Your task to perform on an android device: Look up the best gaming headphones on Best Buy Image 0: 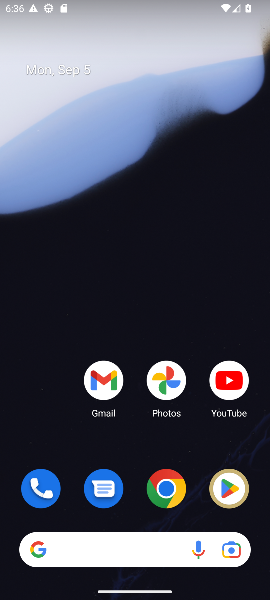
Step 0: click (184, 313)
Your task to perform on an android device: Look up the best gaming headphones on Best Buy Image 1: 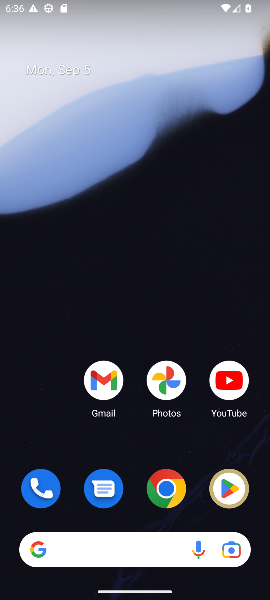
Step 1: click (163, 494)
Your task to perform on an android device: Look up the best gaming headphones on Best Buy Image 2: 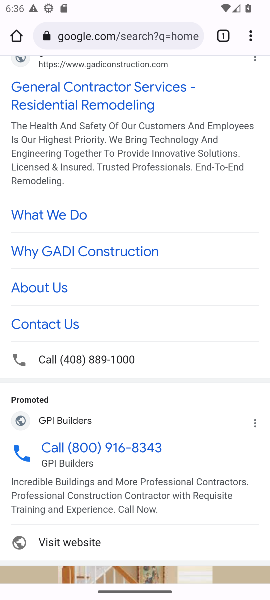
Step 2: click (128, 34)
Your task to perform on an android device: Look up the best gaming headphones on Best Buy Image 3: 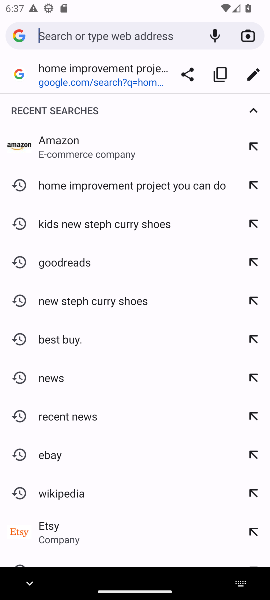
Step 3: type "best buy"
Your task to perform on an android device: Look up the best gaming headphones on Best Buy Image 4: 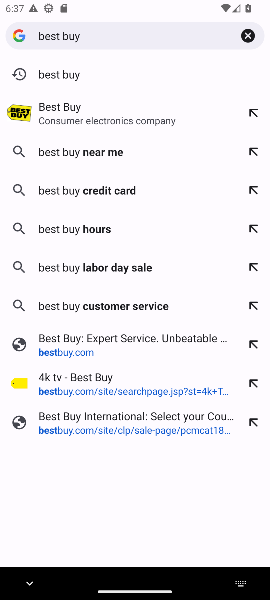
Step 4: press enter
Your task to perform on an android device: Look up the best gaming headphones on Best Buy Image 5: 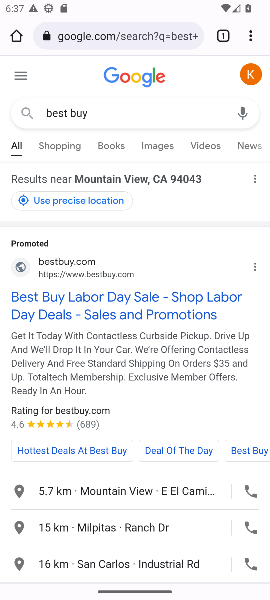
Step 5: click (80, 313)
Your task to perform on an android device: Look up the best gaming headphones on Best Buy Image 6: 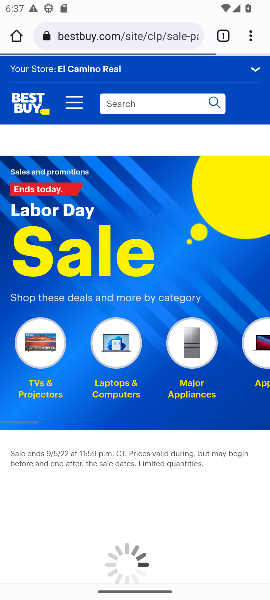
Step 6: click (136, 105)
Your task to perform on an android device: Look up the best gaming headphones on Best Buy Image 7: 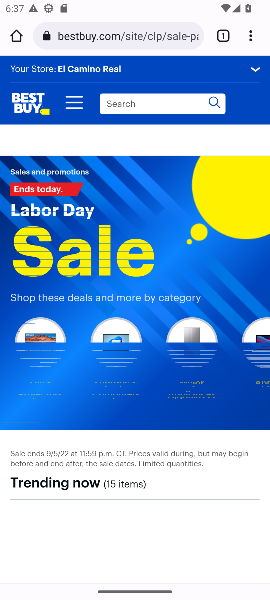
Step 7: click (141, 103)
Your task to perform on an android device: Look up the best gaming headphones on Best Buy Image 8: 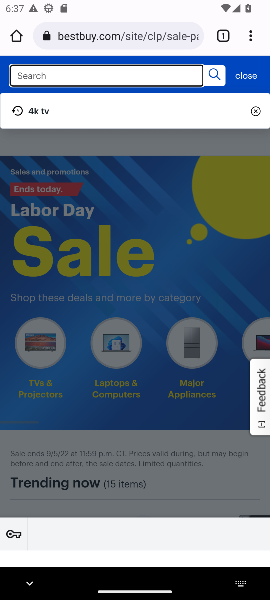
Step 8: type "gaming headphones"
Your task to perform on an android device: Look up the best gaming headphones on Best Buy Image 9: 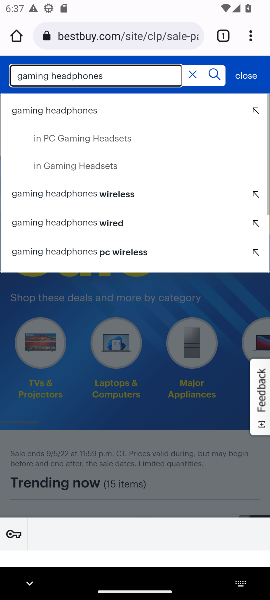
Step 9: press enter
Your task to perform on an android device: Look up the best gaming headphones on Best Buy Image 10: 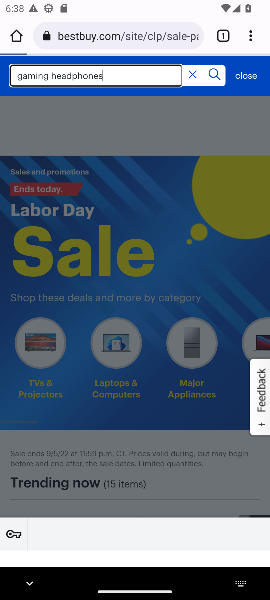
Step 10: click (214, 77)
Your task to perform on an android device: Look up the best gaming headphones on Best Buy Image 11: 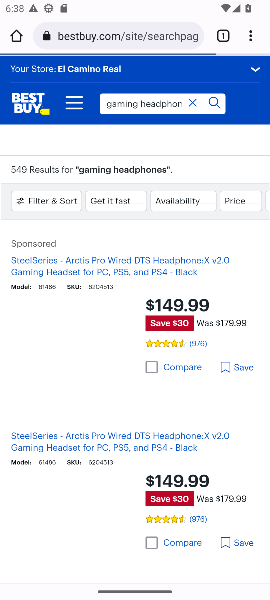
Step 11: click (46, 202)
Your task to perform on an android device: Look up the best gaming headphones on Best Buy Image 12: 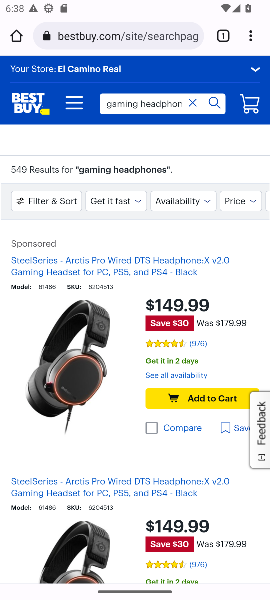
Step 12: click (46, 202)
Your task to perform on an android device: Look up the best gaming headphones on Best Buy Image 13: 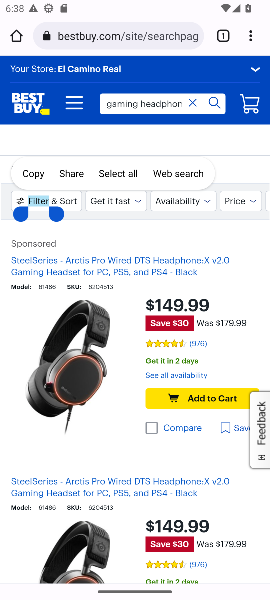
Step 13: click (67, 198)
Your task to perform on an android device: Look up the best gaming headphones on Best Buy Image 14: 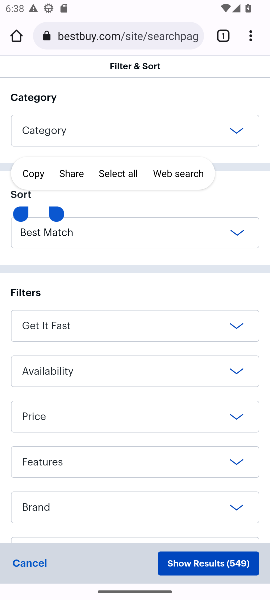
Step 14: click (231, 208)
Your task to perform on an android device: Look up the best gaming headphones on Best Buy Image 15: 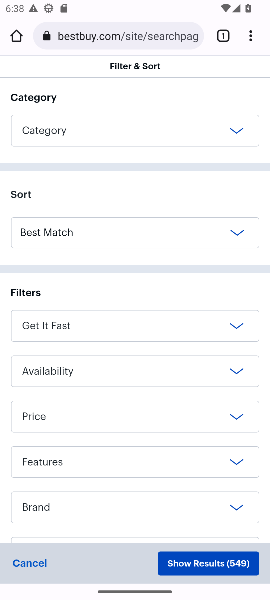
Step 15: click (236, 132)
Your task to perform on an android device: Look up the best gaming headphones on Best Buy Image 16: 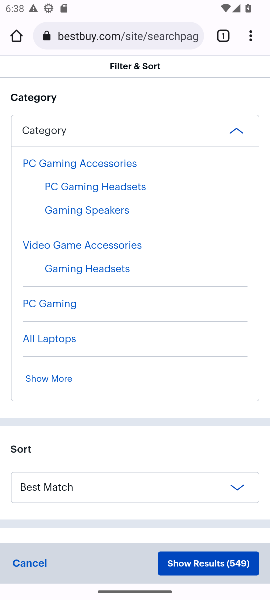
Step 16: click (236, 132)
Your task to perform on an android device: Look up the best gaming headphones on Best Buy Image 17: 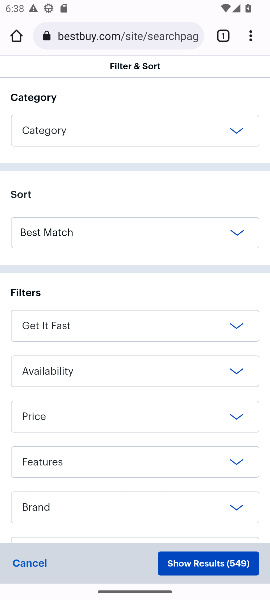
Step 17: drag from (143, 408) to (140, 182)
Your task to perform on an android device: Look up the best gaming headphones on Best Buy Image 18: 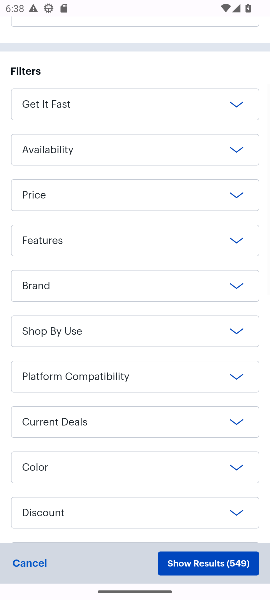
Step 18: drag from (147, 442) to (158, 161)
Your task to perform on an android device: Look up the best gaming headphones on Best Buy Image 19: 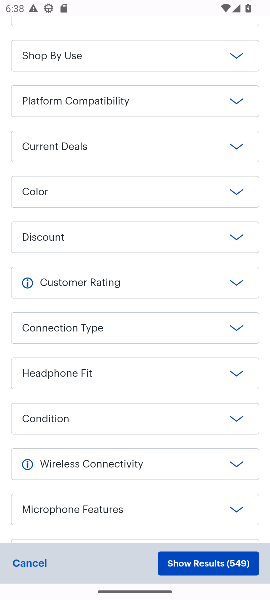
Step 19: drag from (146, 449) to (160, 165)
Your task to perform on an android device: Look up the best gaming headphones on Best Buy Image 20: 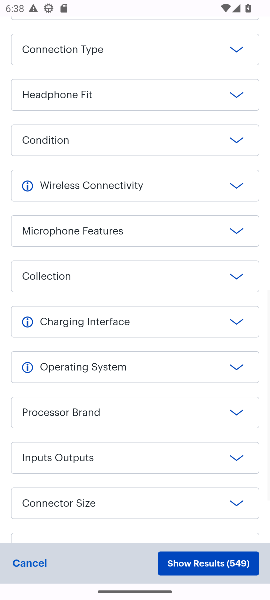
Step 20: drag from (128, 475) to (141, 191)
Your task to perform on an android device: Look up the best gaming headphones on Best Buy Image 21: 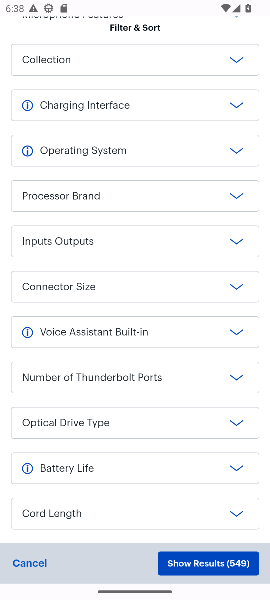
Step 21: drag from (142, 493) to (140, 172)
Your task to perform on an android device: Look up the best gaming headphones on Best Buy Image 22: 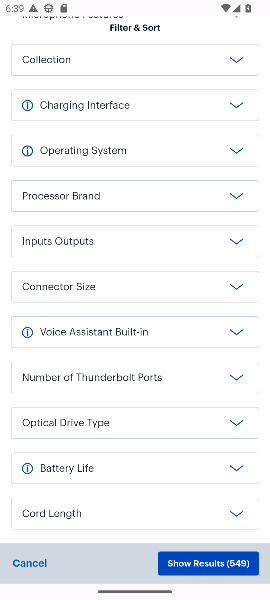
Step 22: click (26, 566)
Your task to perform on an android device: Look up the best gaming headphones on Best Buy Image 23: 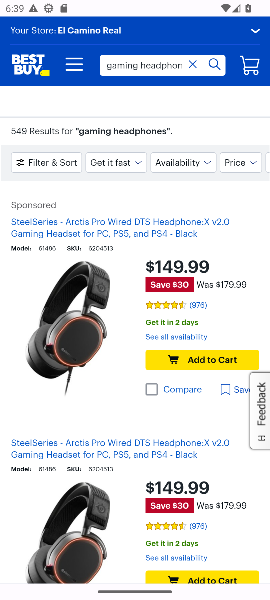
Step 23: task complete